Your task to perform on an android device: turn on improve location accuracy Image 0: 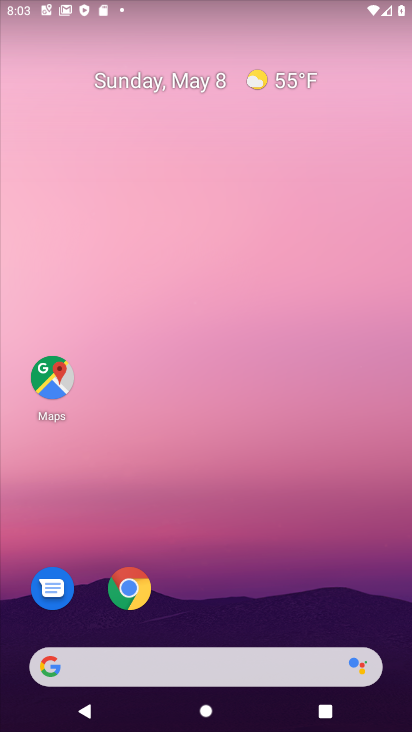
Step 0: drag from (329, 621) to (261, 23)
Your task to perform on an android device: turn on improve location accuracy Image 1: 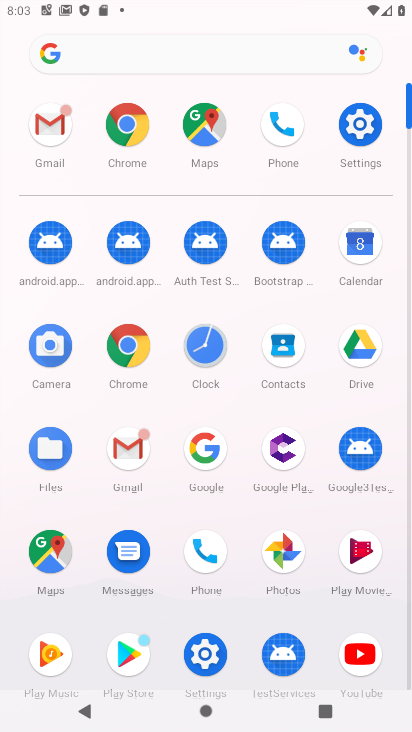
Step 1: click (370, 120)
Your task to perform on an android device: turn on improve location accuracy Image 2: 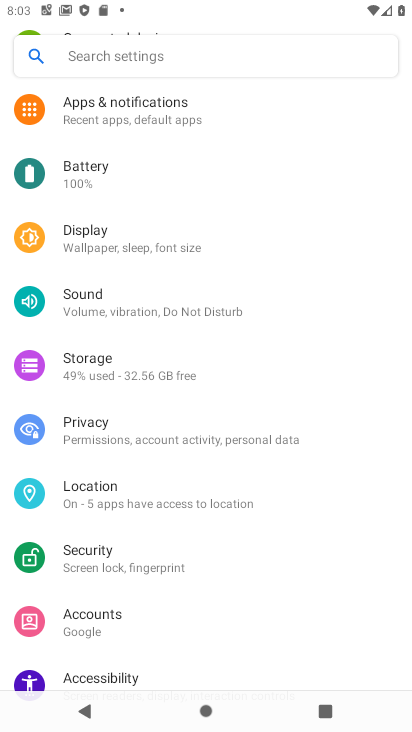
Step 2: click (97, 491)
Your task to perform on an android device: turn on improve location accuracy Image 3: 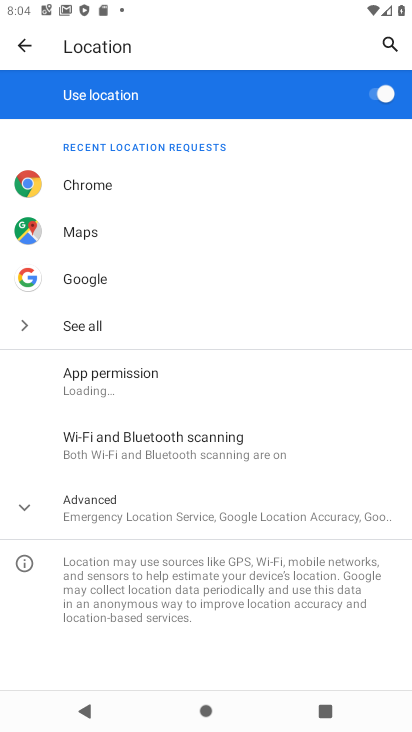
Step 3: click (86, 499)
Your task to perform on an android device: turn on improve location accuracy Image 4: 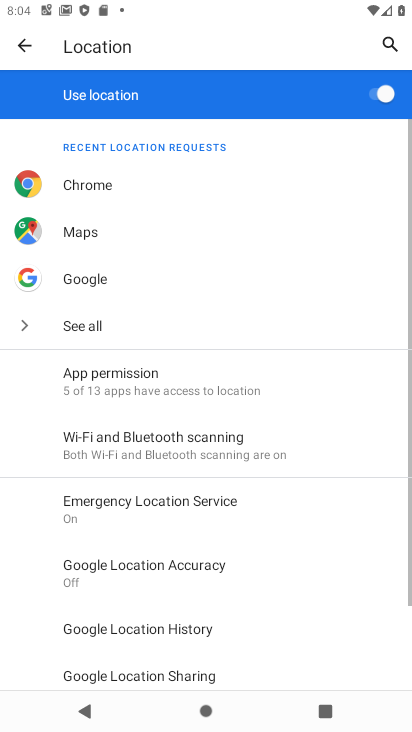
Step 4: click (206, 562)
Your task to perform on an android device: turn on improve location accuracy Image 5: 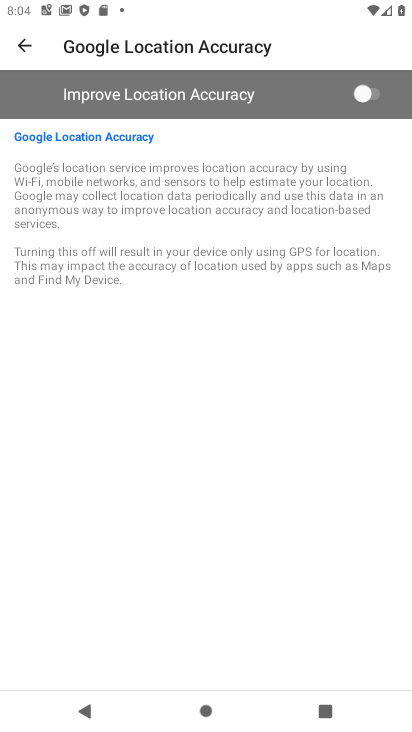
Step 5: click (351, 101)
Your task to perform on an android device: turn on improve location accuracy Image 6: 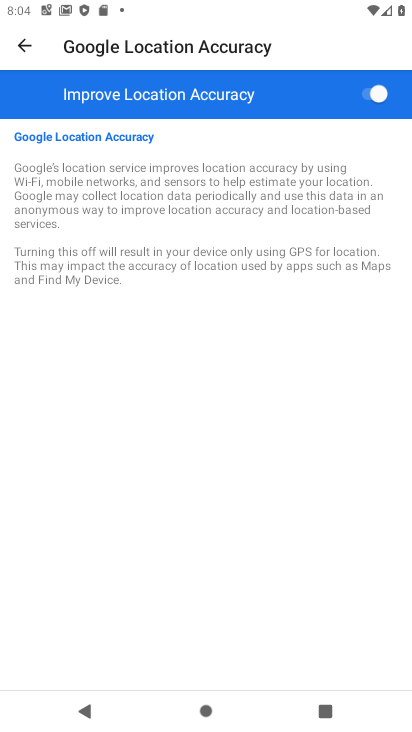
Step 6: task complete